Your task to perform on an android device: turn on priority inbox in the gmail app Image 0: 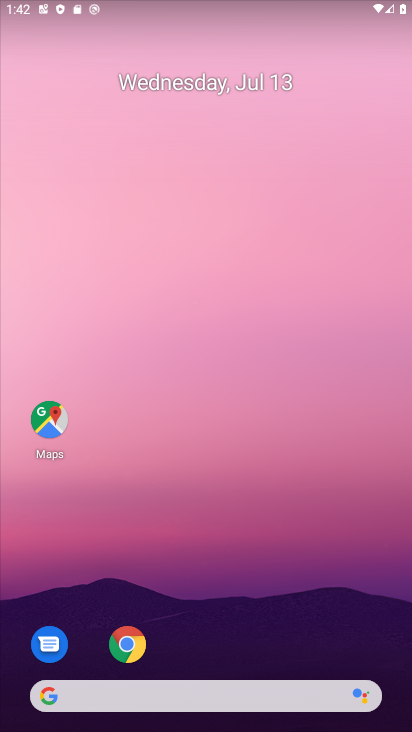
Step 0: drag from (247, 673) to (261, 235)
Your task to perform on an android device: turn on priority inbox in the gmail app Image 1: 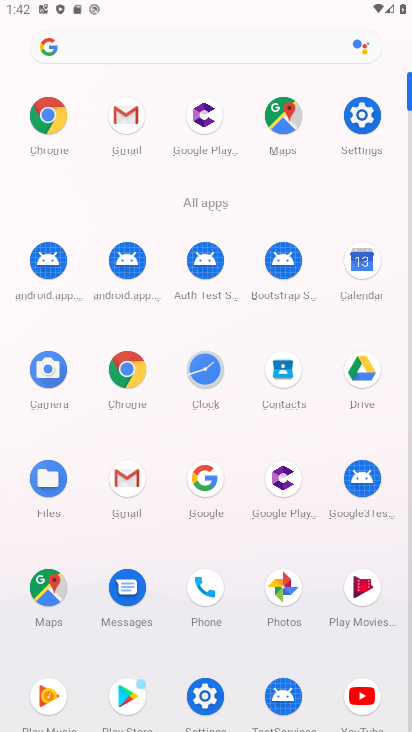
Step 1: click (135, 467)
Your task to perform on an android device: turn on priority inbox in the gmail app Image 2: 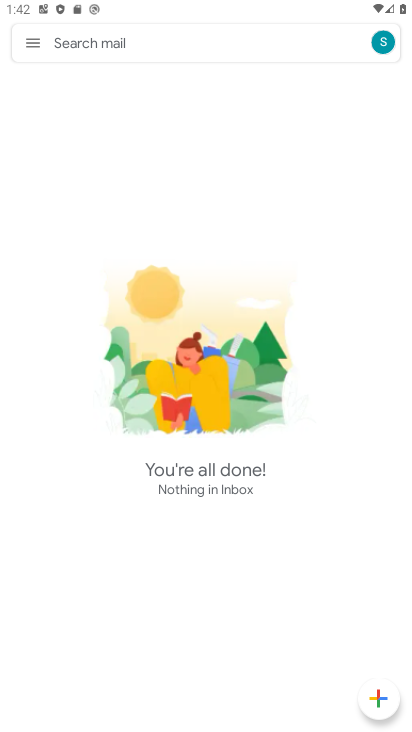
Step 2: click (33, 48)
Your task to perform on an android device: turn on priority inbox in the gmail app Image 3: 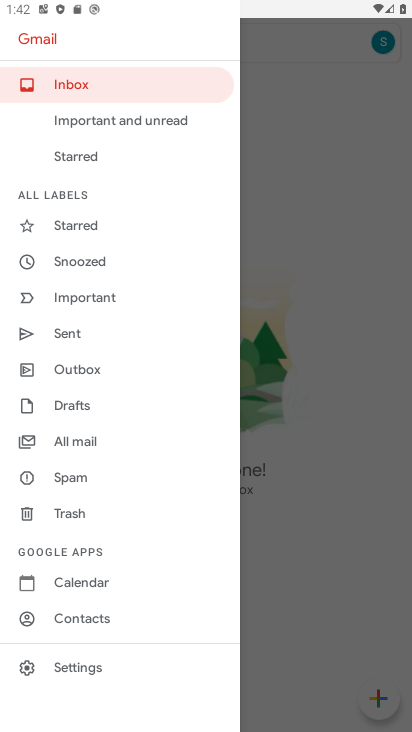
Step 3: click (77, 668)
Your task to perform on an android device: turn on priority inbox in the gmail app Image 4: 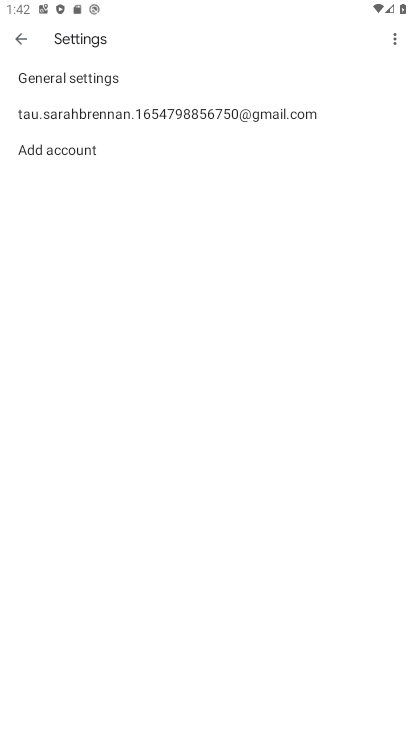
Step 4: click (157, 111)
Your task to perform on an android device: turn on priority inbox in the gmail app Image 5: 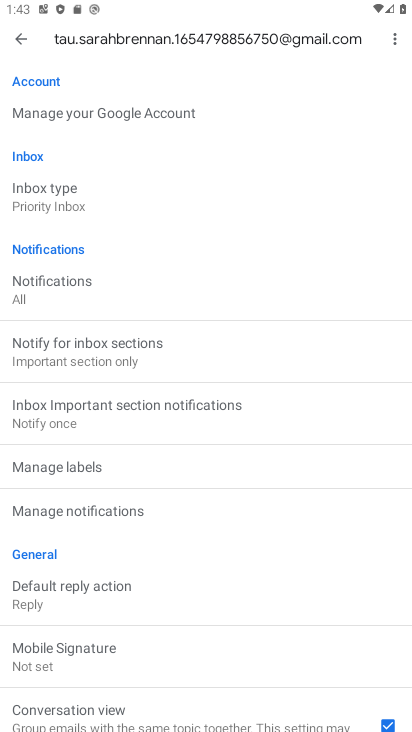
Step 5: task complete